Your task to perform on an android device: open a new tab in the chrome app Image 0: 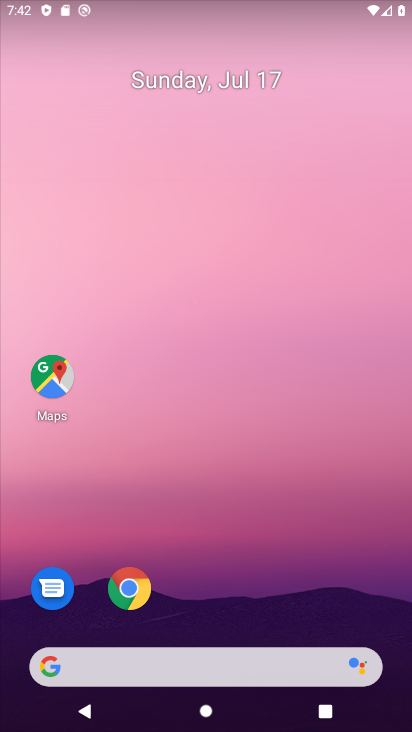
Step 0: drag from (241, 657) to (281, 246)
Your task to perform on an android device: open a new tab in the chrome app Image 1: 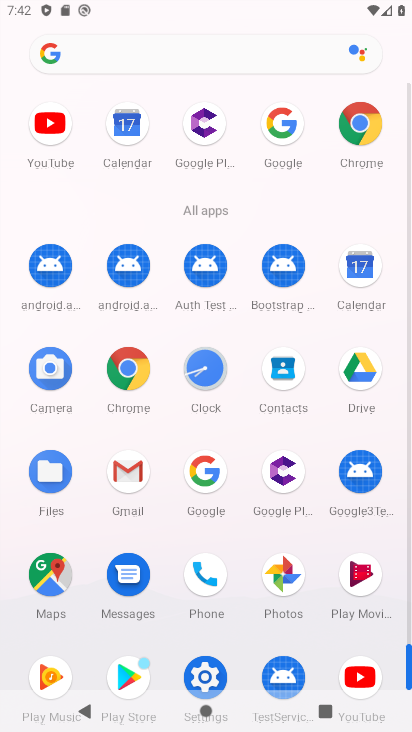
Step 1: click (135, 385)
Your task to perform on an android device: open a new tab in the chrome app Image 2: 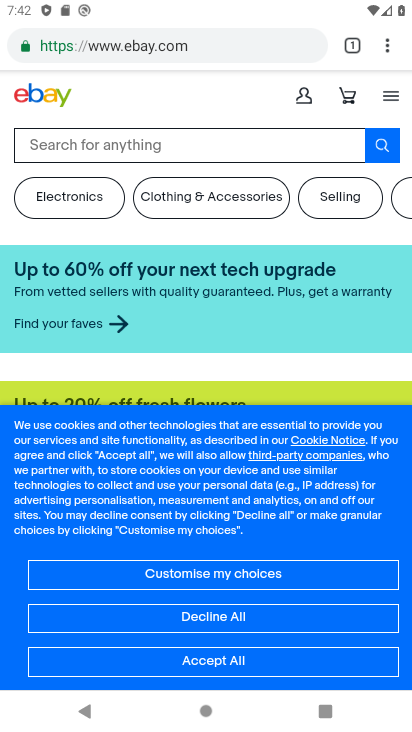
Step 2: drag from (366, 164) to (366, 207)
Your task to perform on an android device: open a new tab in the chrome app Image 3: 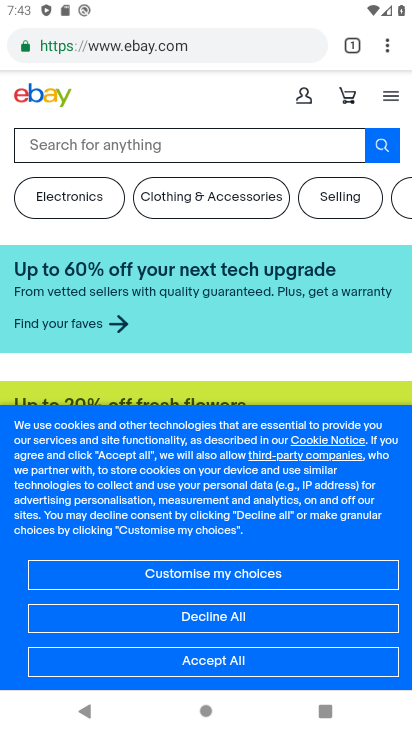
Step 3: drag from (353, 47) to (358, 297)
Your task to perform on an android device: open a new tab in the chrome app Image 4: 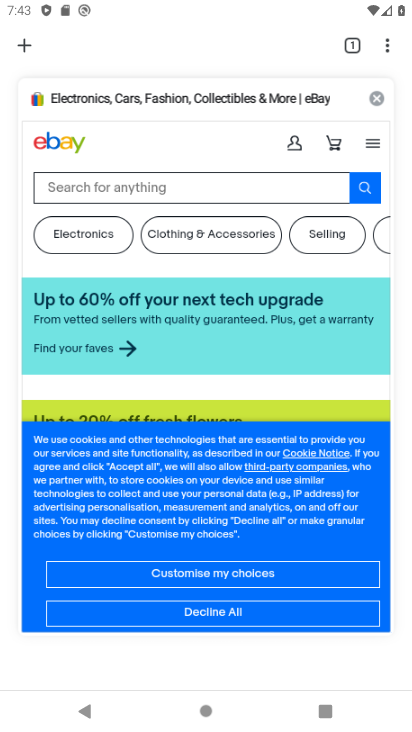
Step 4: click (26, 49)
Your task to perform on an android device: open a new tab in the chrome app Image 5: 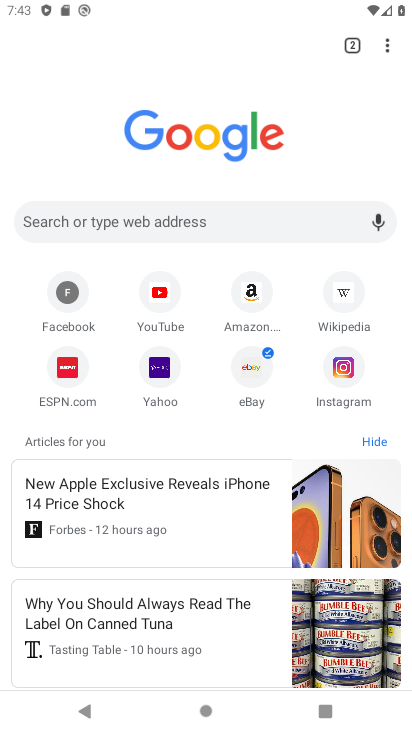
Step 5: task complete